Your task to perform on an android device: What's on my calendar today? Image 0: 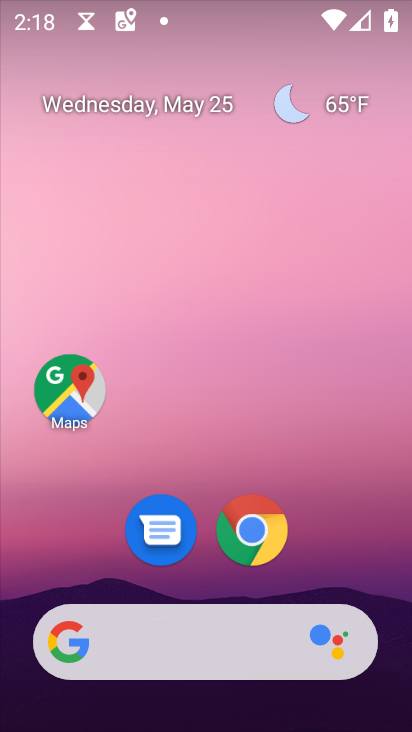
Step 0: drag from (339, 499) to (358, 279)
Your task to perform on an android device: What's on my calendar today? Image 1: 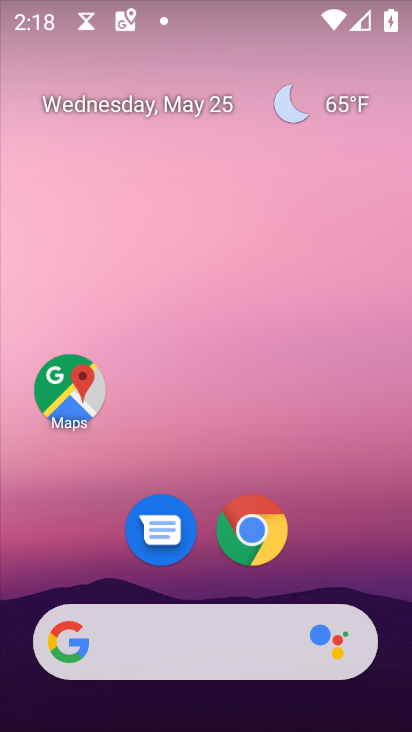
Step 1: drag from (340, 565) to (367, 242)
Your task to perform on an android device: What's on my calendar today? Image 2: 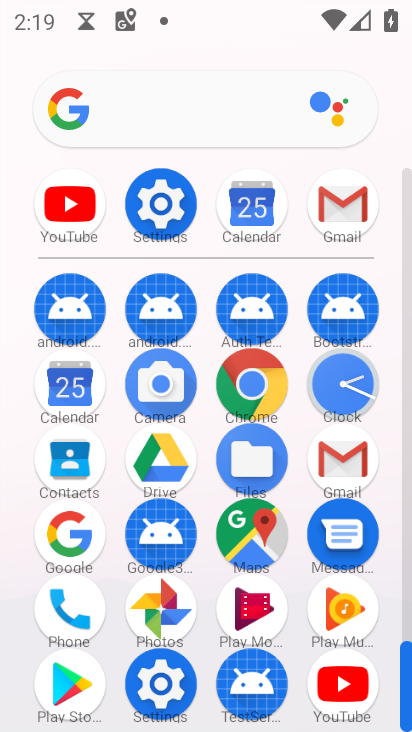
Step 2: click (236, 207)
Your task to perform on an android device: What's on my calendar today? Image 3: 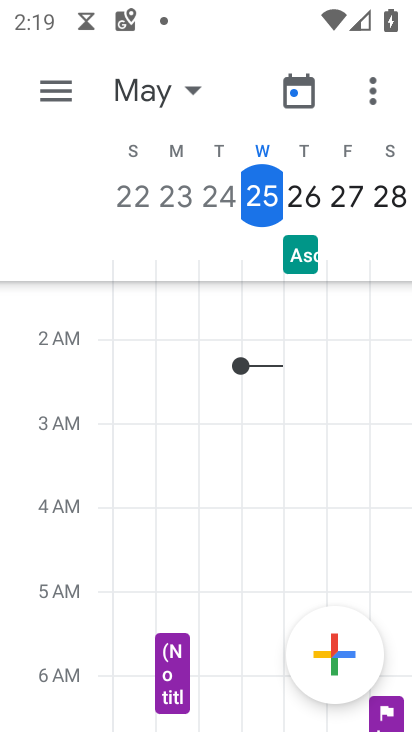
Step 3: task complete